Your task to perform on an android device: turn off priority inbox in the gmail app Image 0: 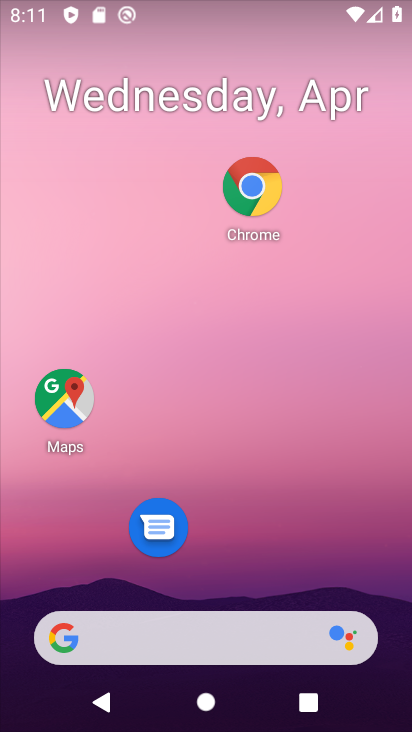
Step 0: drag from (347, 591) to (369, 120)
Your task to perform on an android device: turn off priority inbox in the gmail app Image 1: 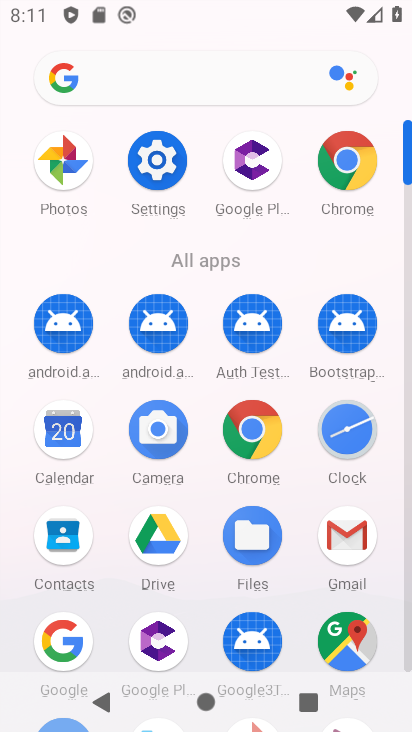
Step 1: click (349, 529)
Your task to perform on an android device: turn off priority inbox in the gmail app Image 2: 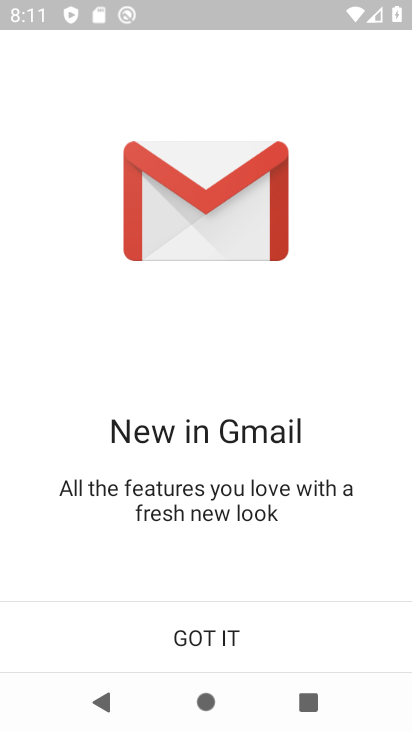
Step 2: click (252, 637)
Your task to perform on an android device: turn off priority inbox in the gmail app Image 3: 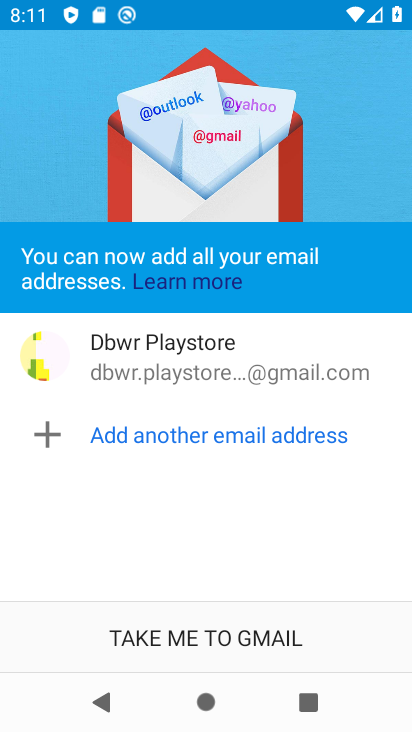
Step 3: click (252, 637)
Your task to perform on an android device: turn off priority inbox in the gmail app Image 4: 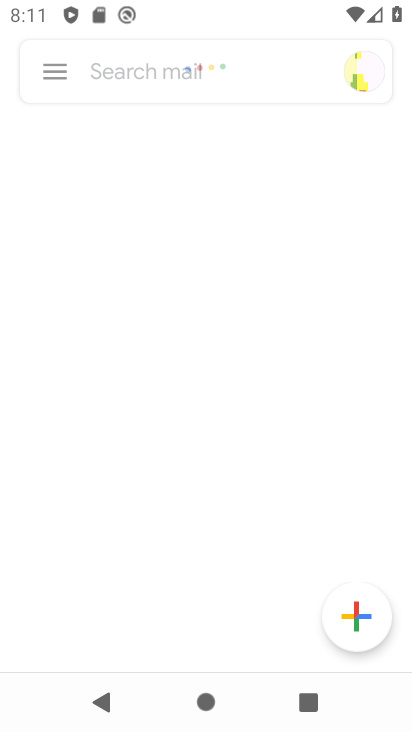
Step 4: click (57, 63)
Your task to perform on an android device: turn off priority inbox in the gmail app Image 5: 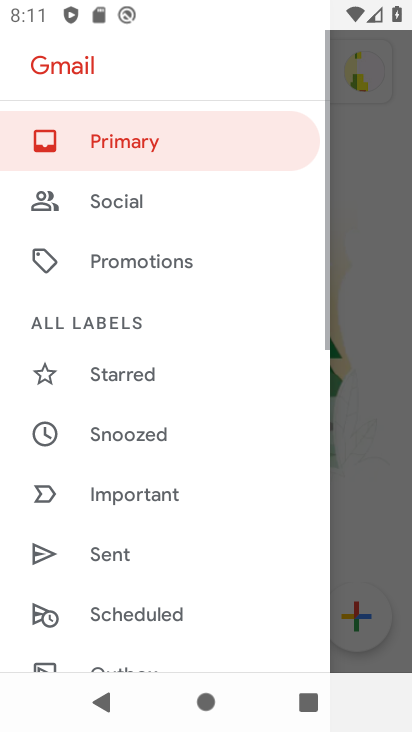
Step 5: drag from (212, 606) to (252, 168)
Your task to perform on an android device: turn off priority inbox in the gmail app Image 6: 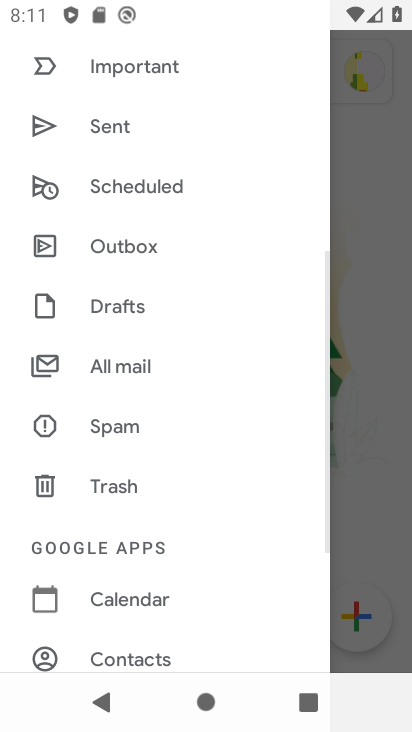
Step 6: drag from (171, 638) to (190, 221)
Your task to perform on an android device: turn off priority inbox in the gmail app Image 7: 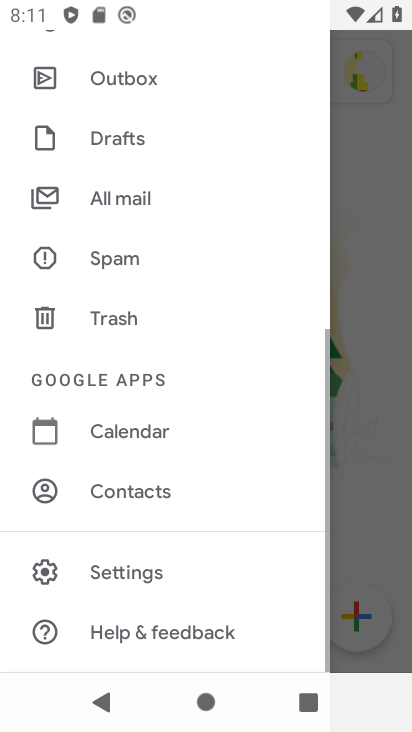
Step 7: click (169, 573)
Your task to perform on an android device: turn off priority inbox in the gmail app Image 8: 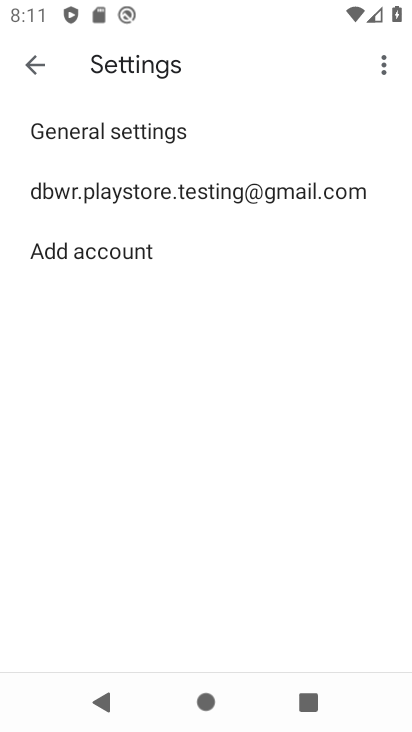
Step 8: click (172, 179)
Your task to perform on an android device: turn off priority inbox in the gmail app Image 9: 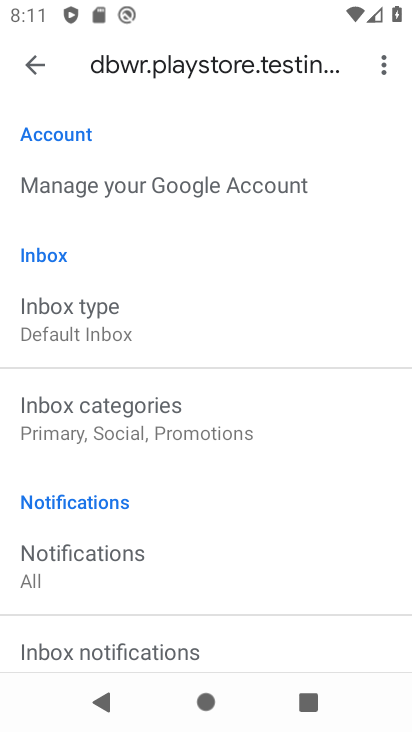
Step 9: click (143, 332)
Your task to perform on an android device: turn off priority inbox in the gmail app Image 10: 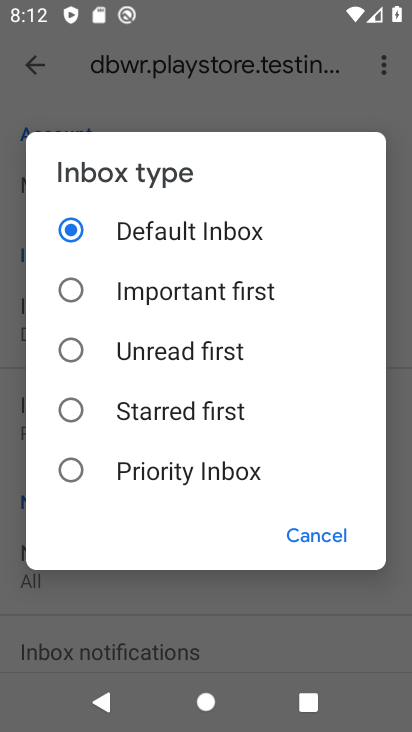
Step 10: task complete